Your task to perform on an android device: Open ESPN.com Image 0: 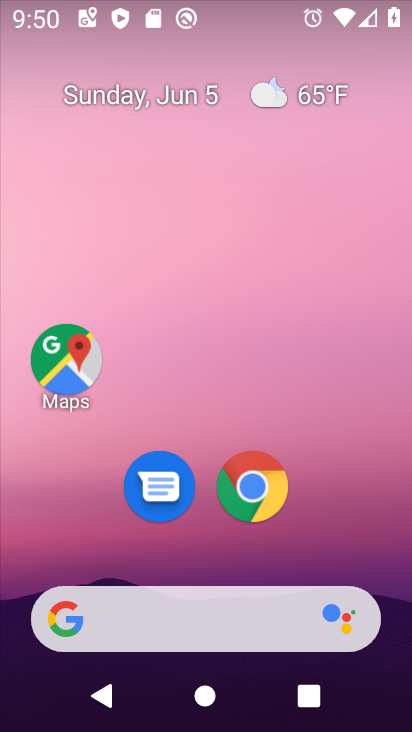
Step 0: drag from (317, 545) to (328, 140)
Your task to perform on an android device: Open ESPN.com Image 1: 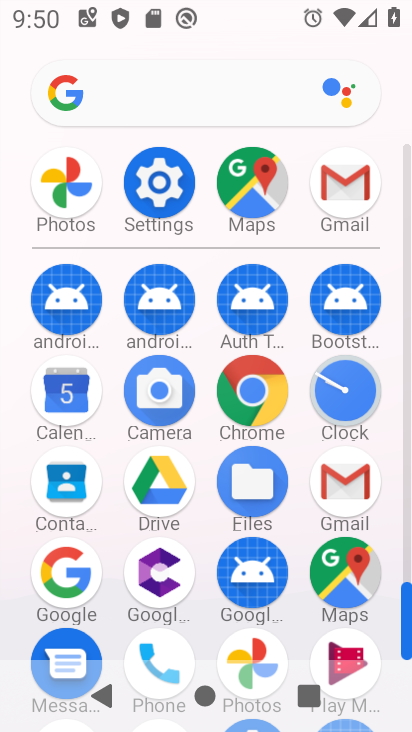
Step 1: click (254, 403)
Your task to perform on an android device: Open ESPN.com Image 2: 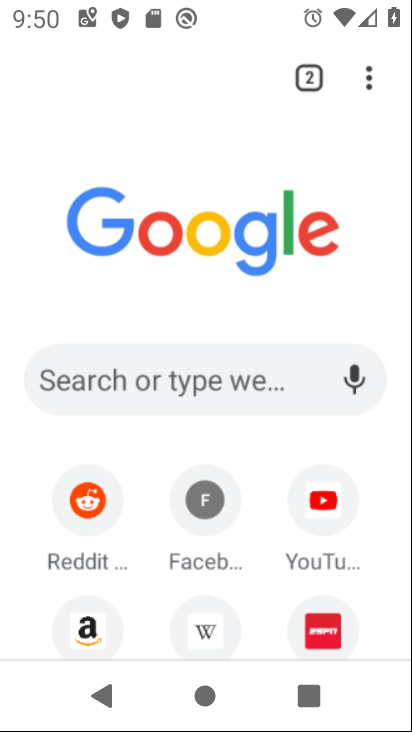
Step 2: click (251, 384)
Your task to perform on an android device: Open ESPN.com Image 3: 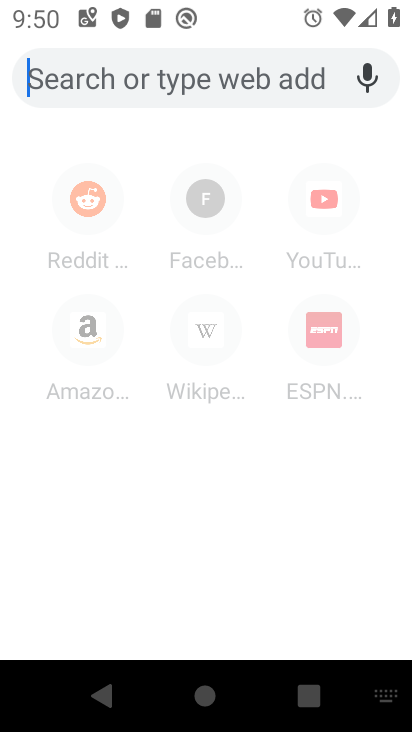
Step 3: type "espn.com "
Your task to perform on an android device: Open ESPN.com Image 4: 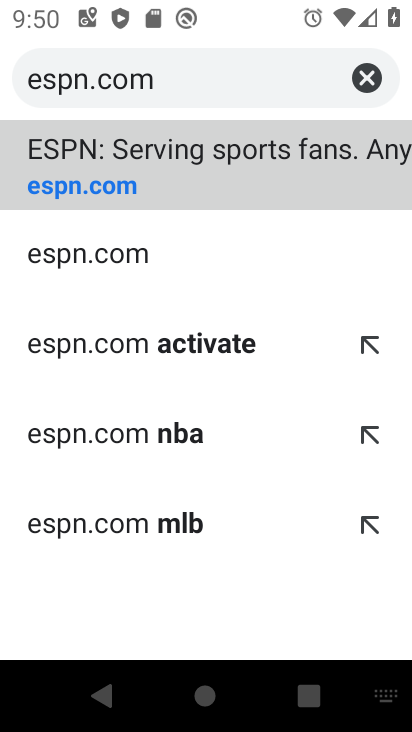
Step 4: click (223, 169)
Your task to perform on an android device: Open ESPN.com Image 5: 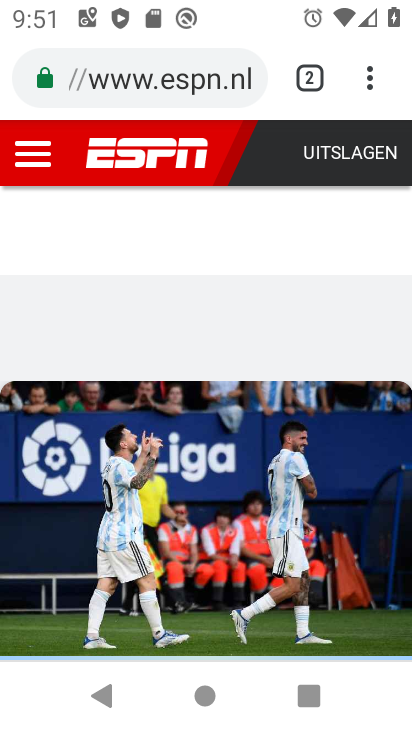
Step 5: task complete